Your task to perform on an android device: delete browsing data in the chrome app Image 0: 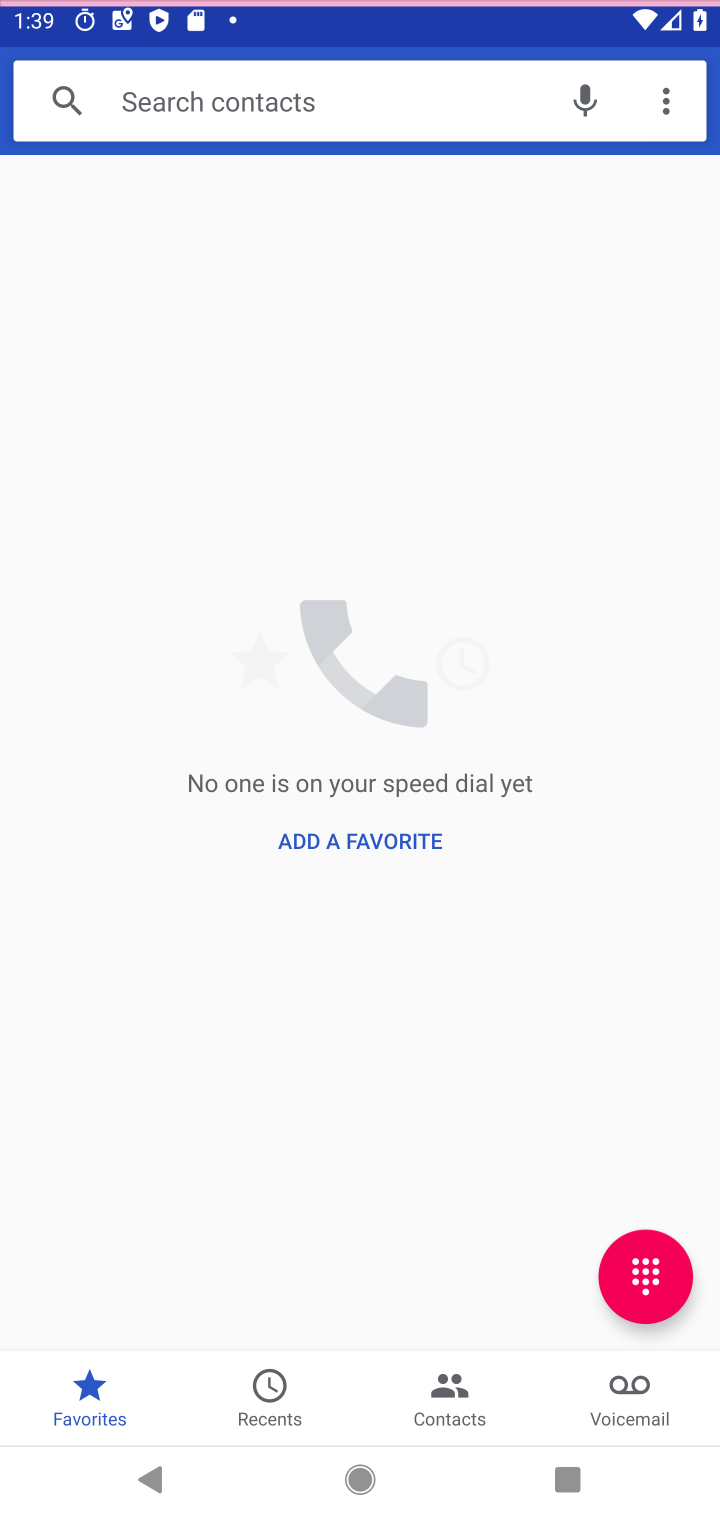
Step 0: press home button
Your task to perform on an android device: delete browsing data in the chrome app Image 1: 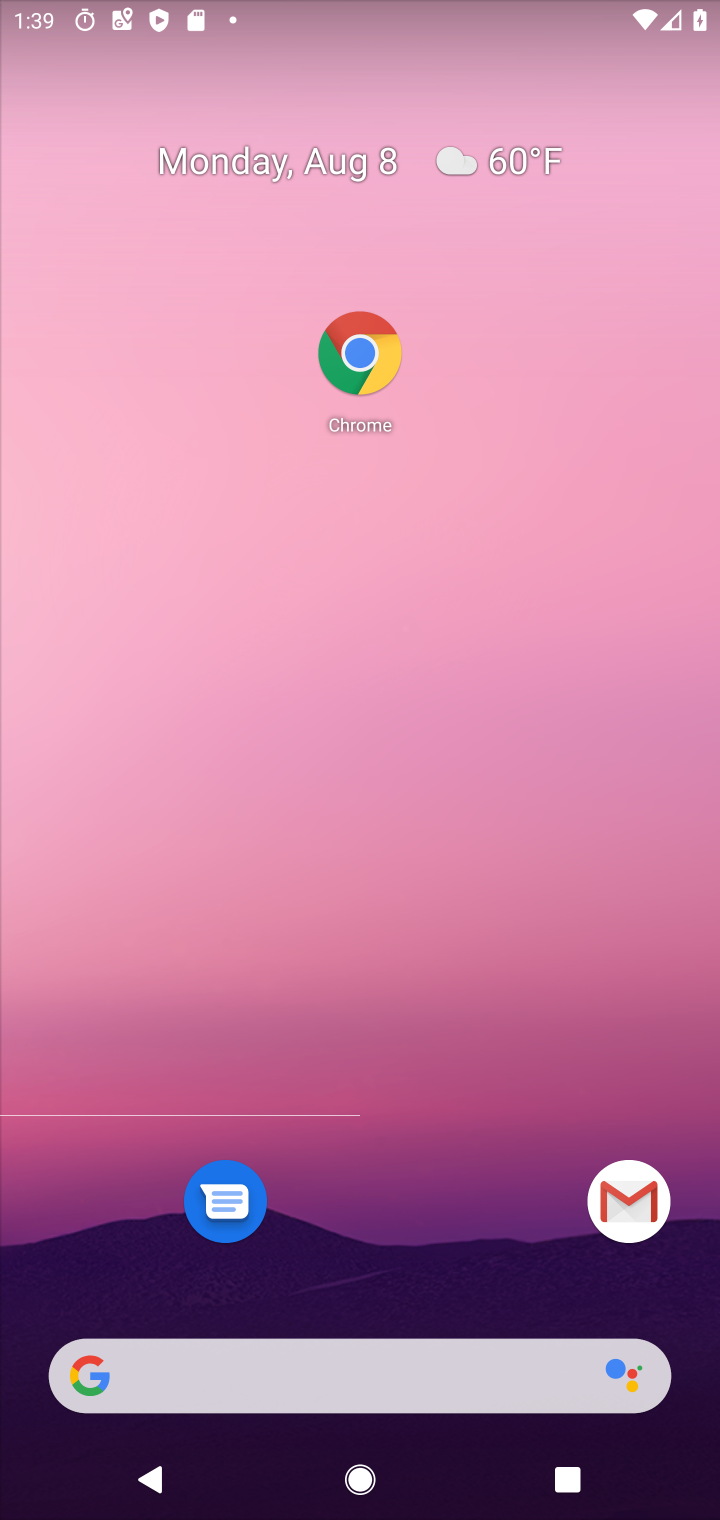
Step 1: drag from (519, 1380) to (618, 408)
Your task to perform on an android device: delete browsing data in the chrome app Image 2: 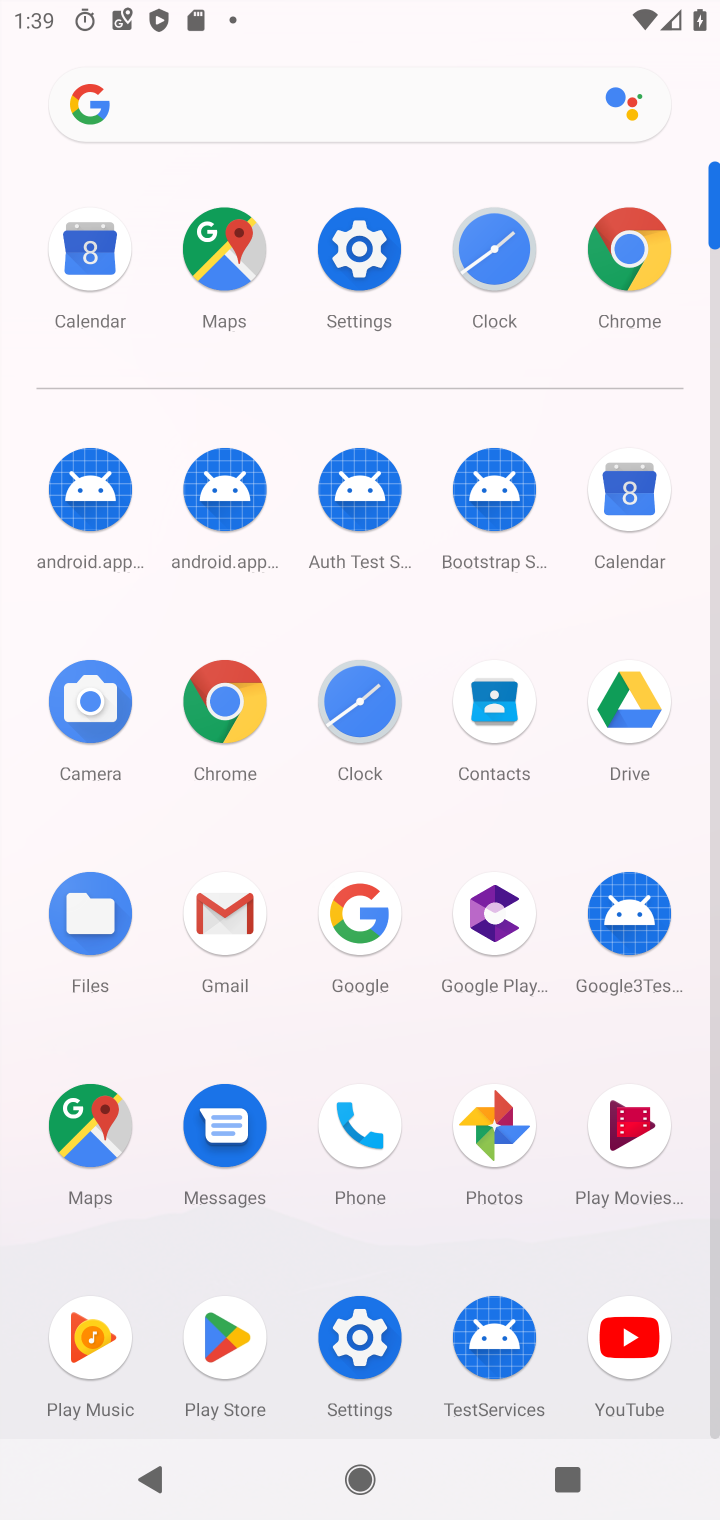
Step 2: click (647, 255)
Your task to perform on an android device: delete browsing data in the chrome app Image 3: 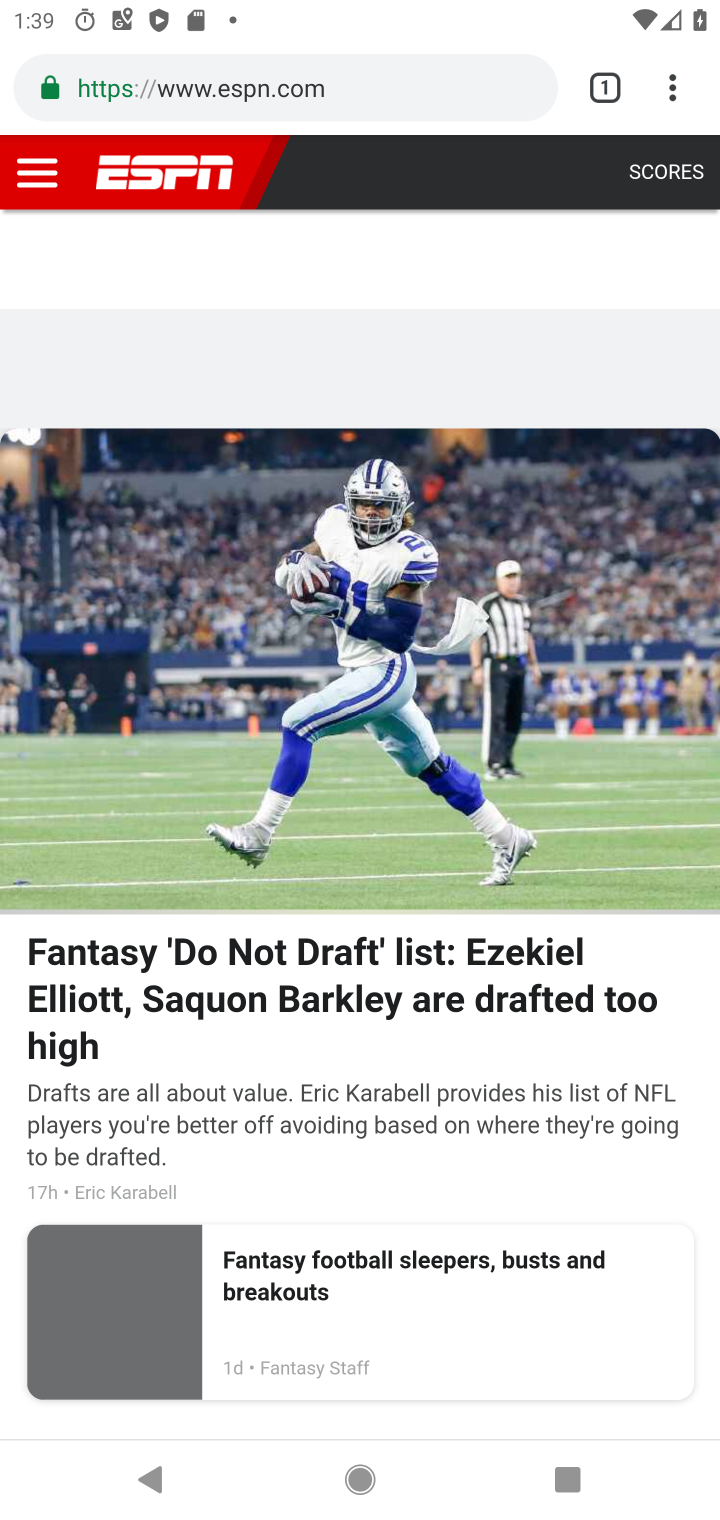
Step 3: click (671, 84)
Your task to perform on an android device: delete browsing data in the chrome app Image 4: 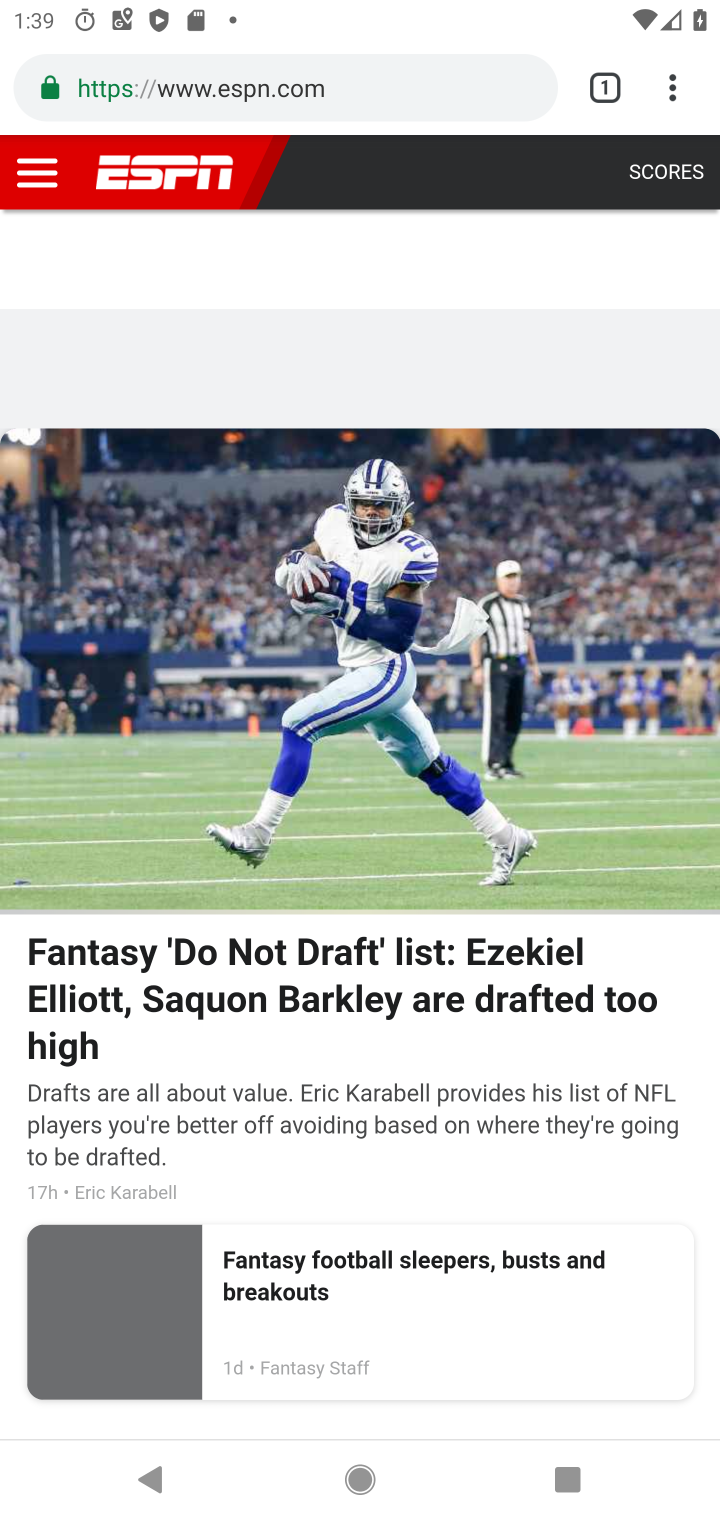
Step 4: click (677, 99)
Your task to perform on an android device: delete browsing data in the chrome app Image 5: 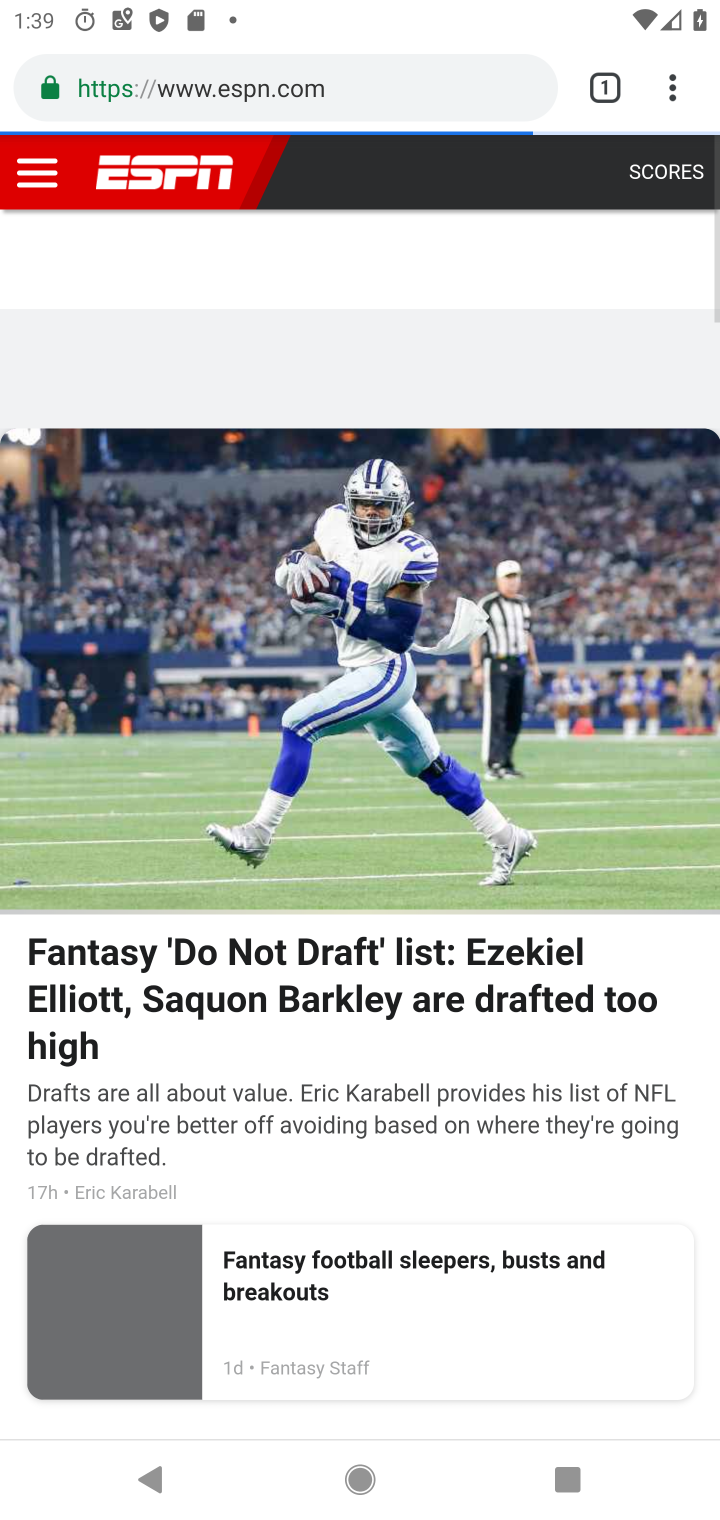
Step 5: click (682, 79)
Your task to perform on an android device: delete browsing data in the chrome app Image 6: 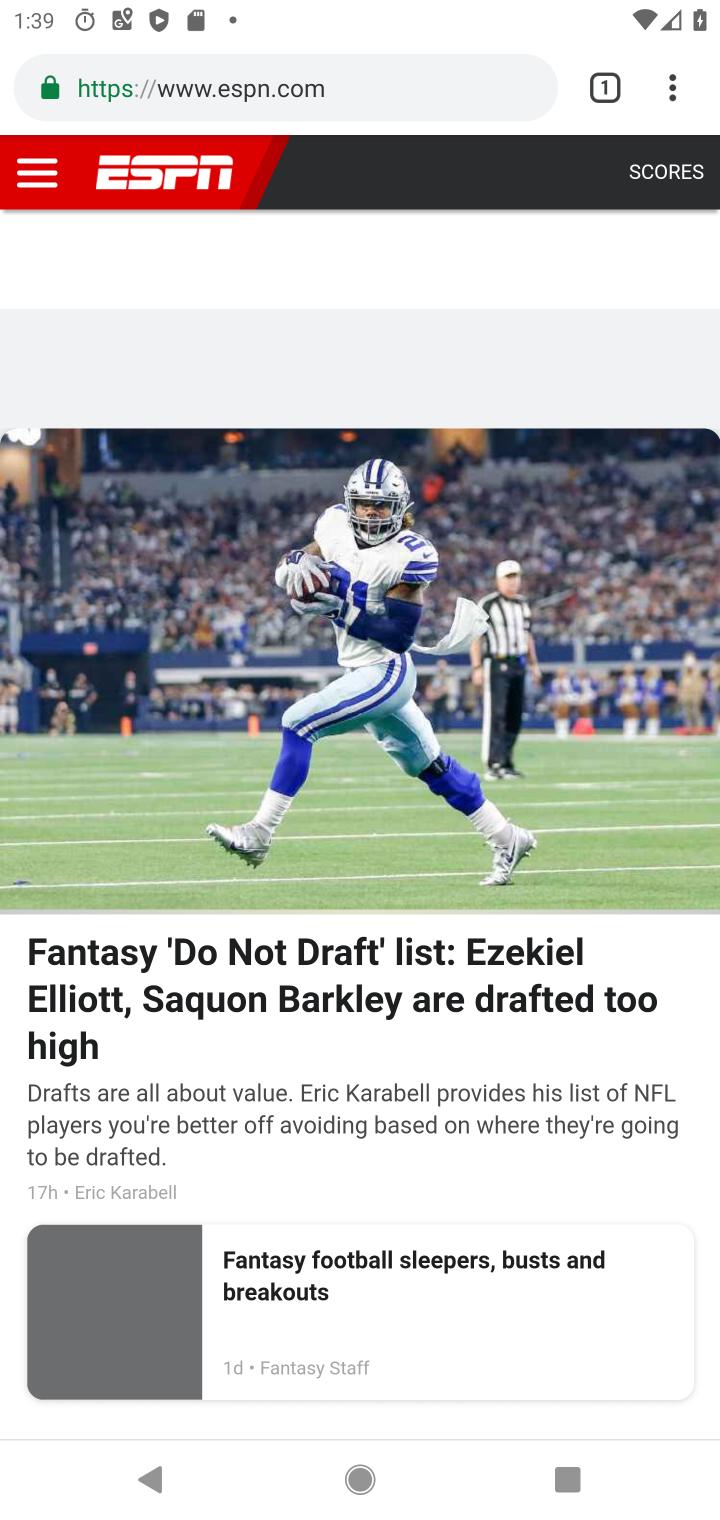
Step 6: click (667, 83)
Your task to perform on an android device: delete browsing data in the chrome app Image 7: 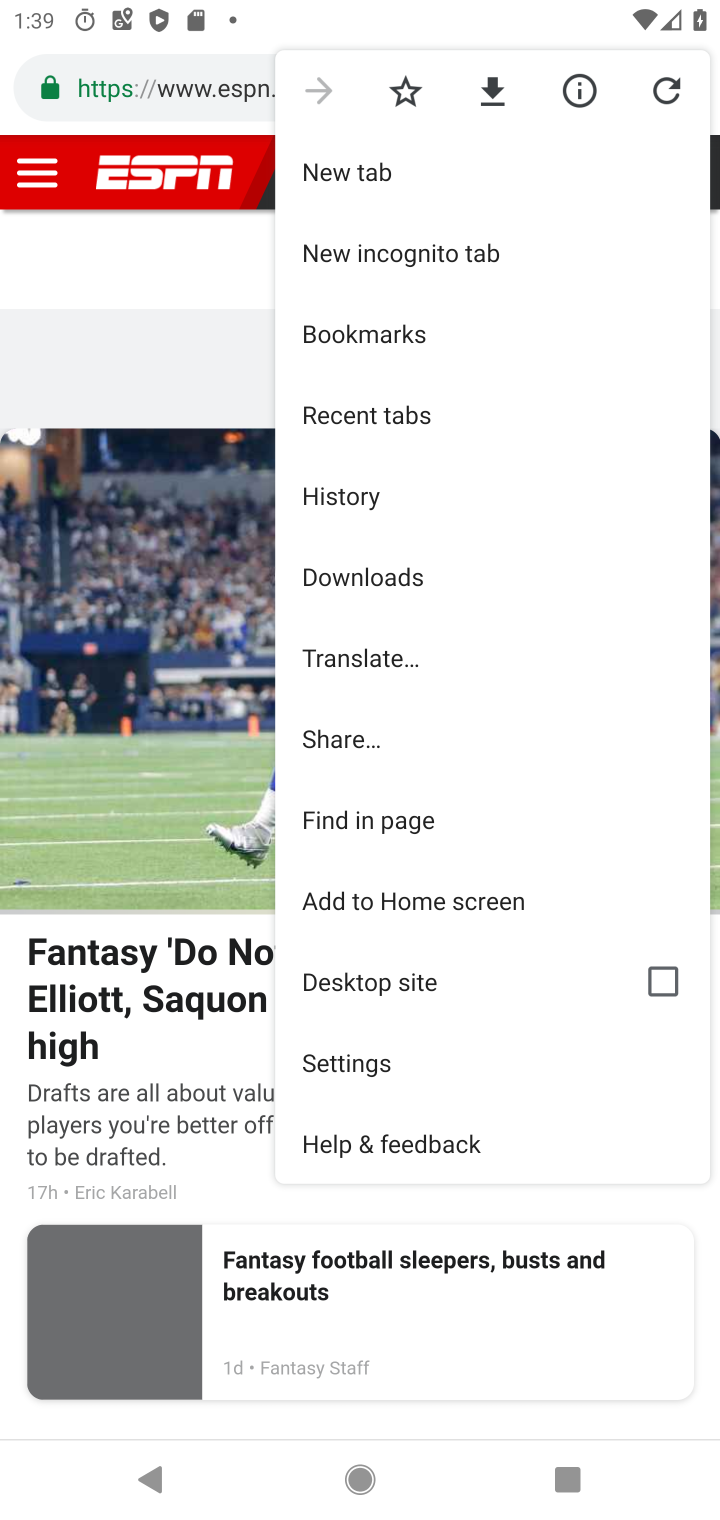
Step 7: click (371, 1073)
Your task to perform on an android device: delete browsing data in the chrome app Image 8: 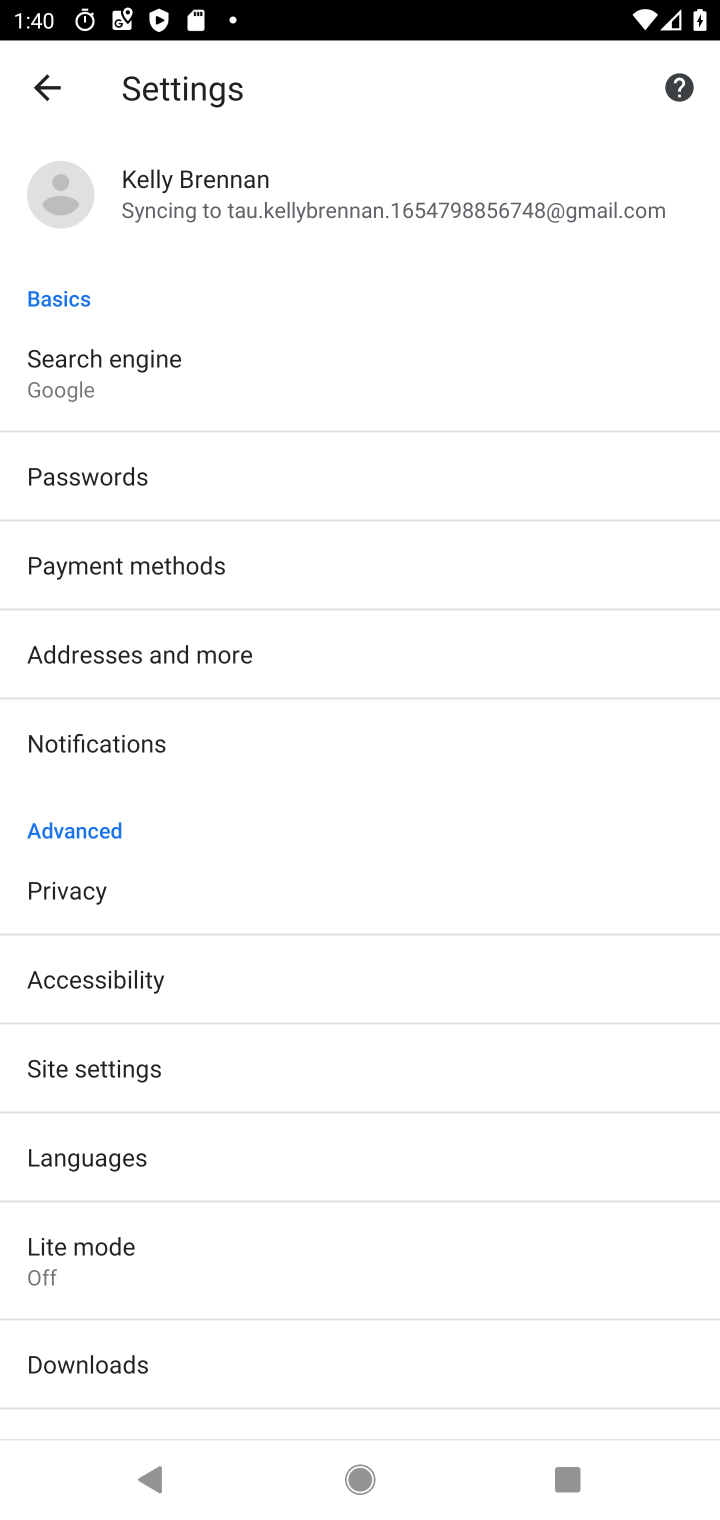
Step 8: click (76, 905)
Your task to perform on an android device: delete browsing data in the chrome app Image 9: 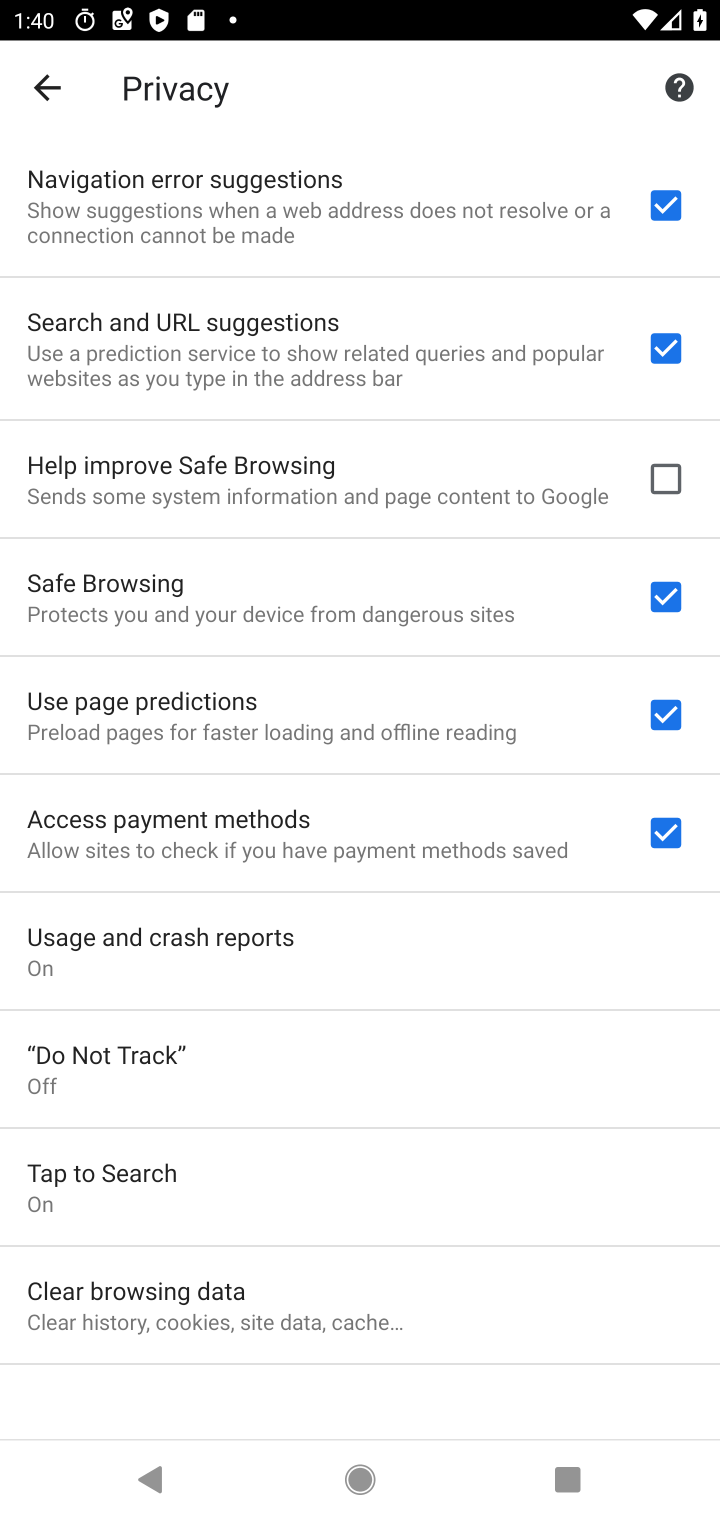
Step 9: click (153, 1306)
Your task to perform on an android device: delete browsing data in the chrome app Image 10: 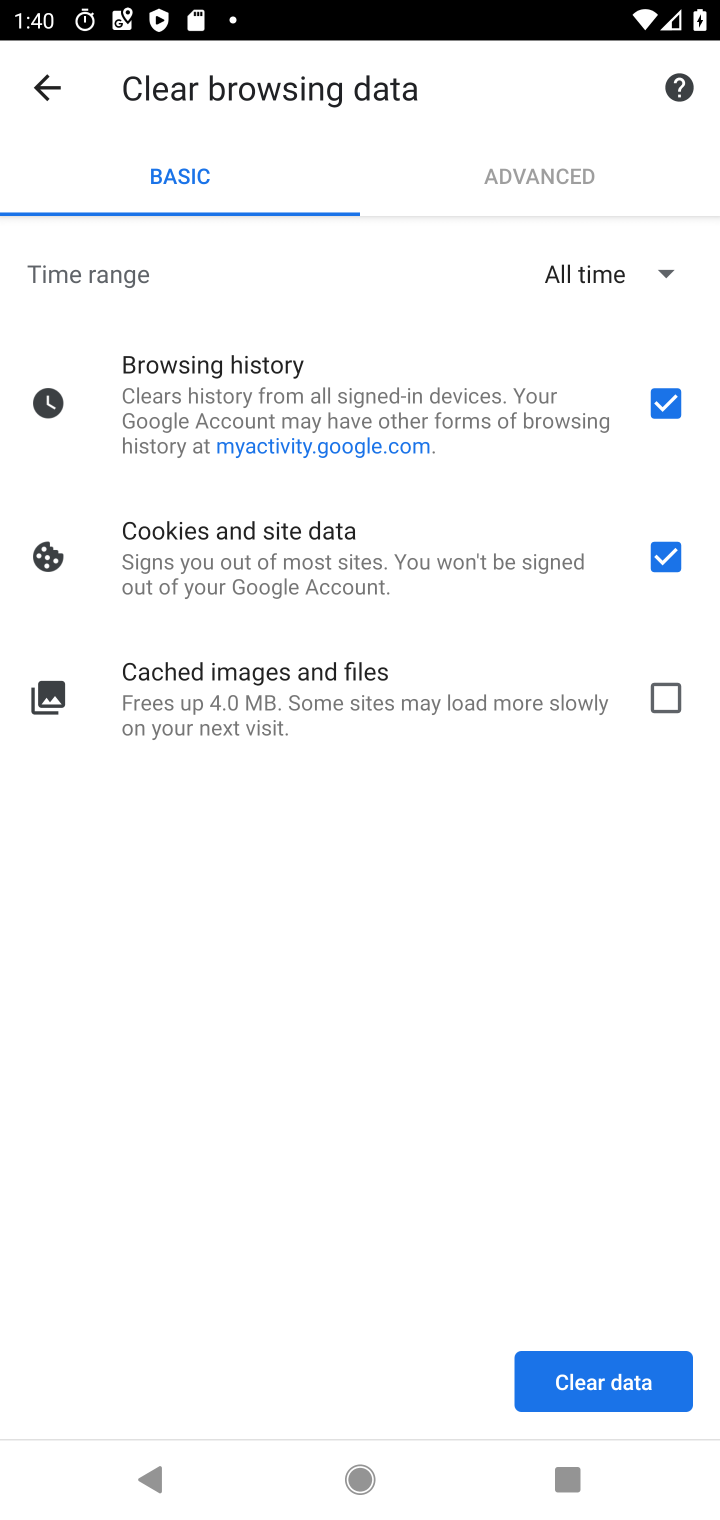
Step 10: click (633, 1394)
Your task to perform on an android device: delete browsing data in the chrome app Image 11: 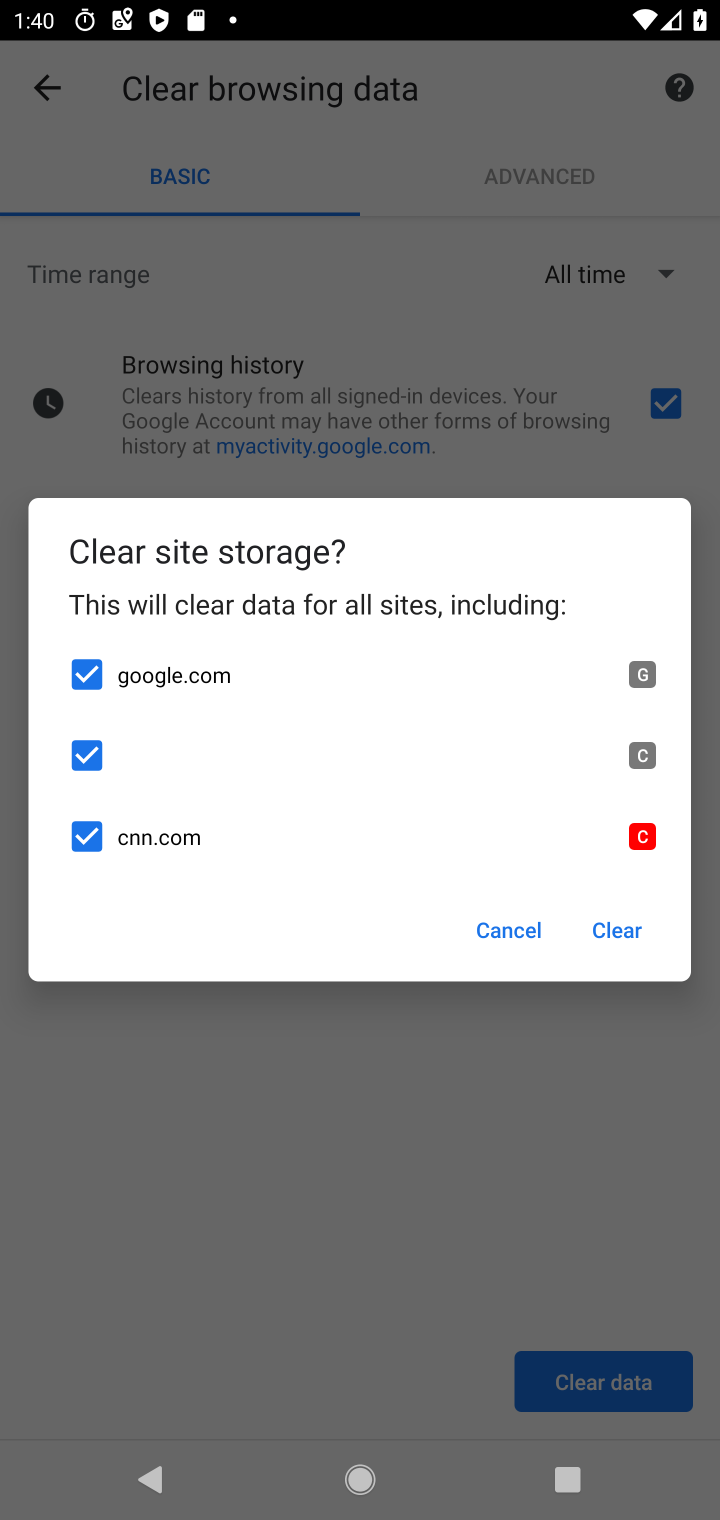
Step 11: click (613, 921)
Your task to perform on an android device: delete browsing data in the chrome app Image 12: 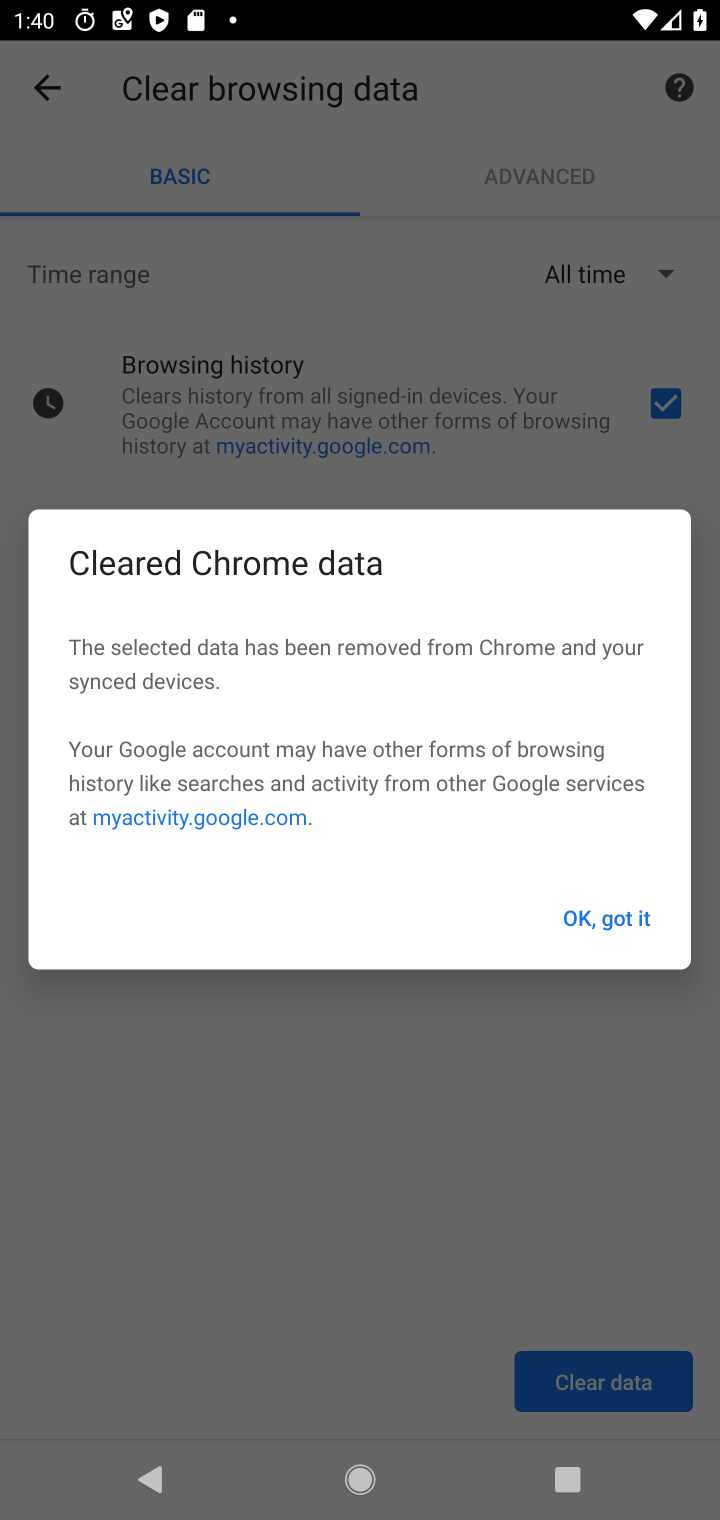
Step 12: task complete